Your task to perform on an android device: Open my contact list Image 0: 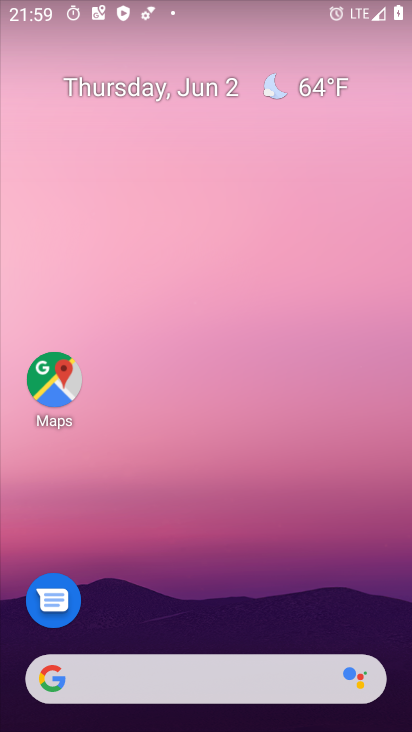
Step 0: drag from (174, 595) to (160, 30)
Your task to perform on an android device: Open my contact list Image 1: 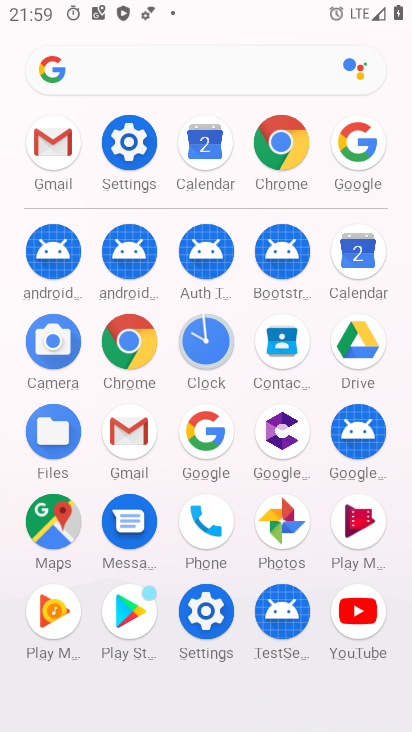
Step 1: click (353, 256)
Your task to perform on an android device: Open my contact list Image 2: 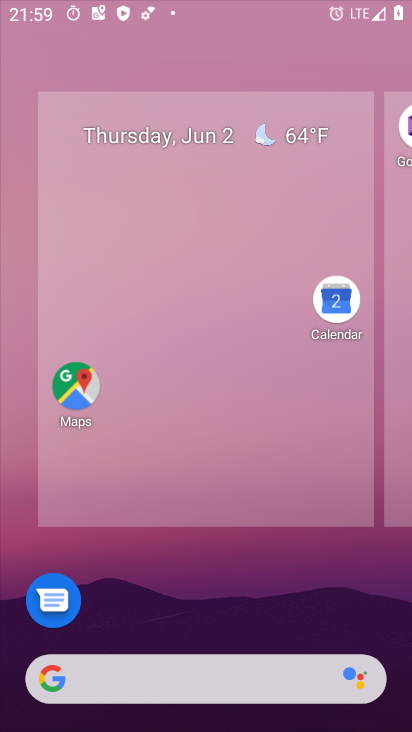
Step 2: drag from (230, 603) to (239, 47)
Your task to perform on an android device: Open my contact list Image 3: 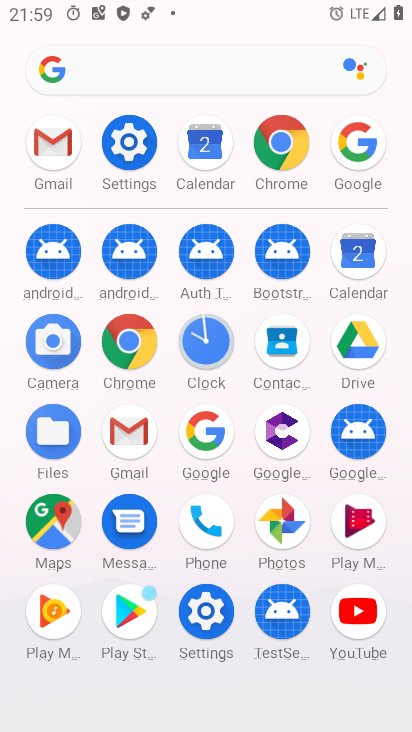
Step 3: click (280, 354)
Your task to perform on an android device: Open my contact list Image 4: 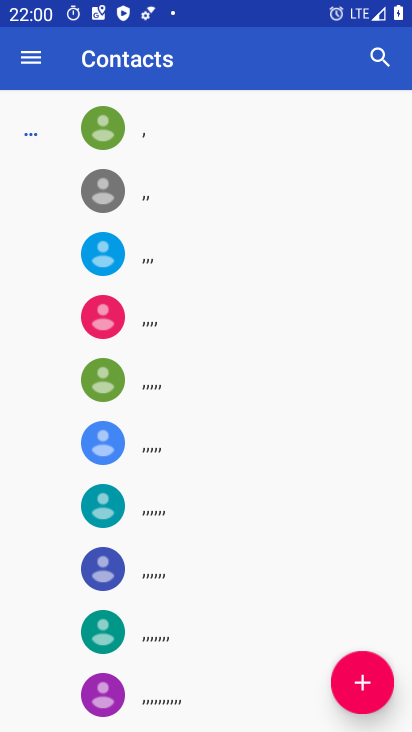
Step 4: task complete